Your task to perform on an android device: open a bookmark in the chrome app Image 0: 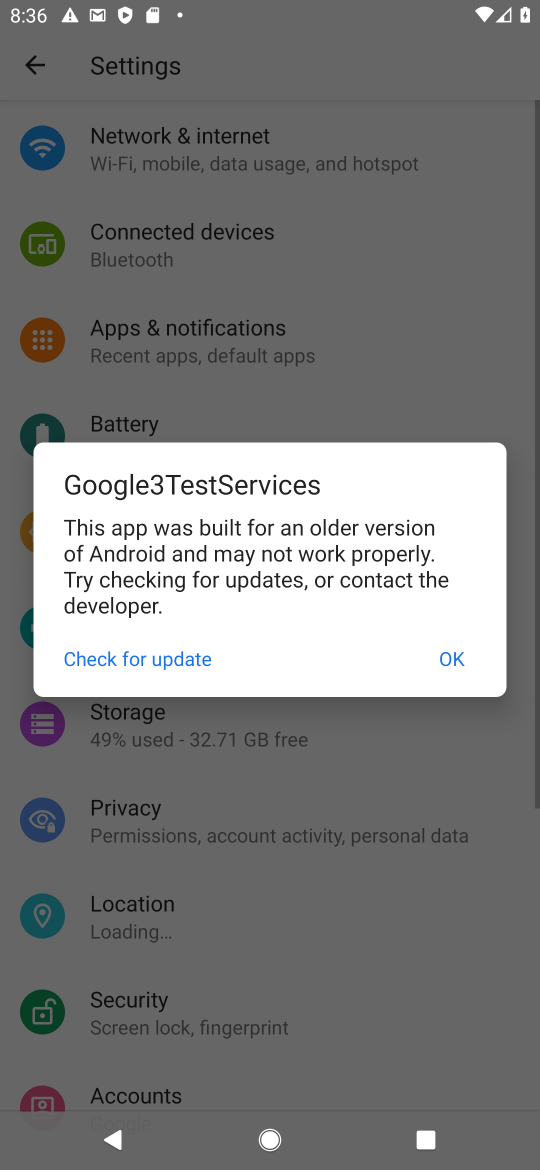
Step 0: click (442, 666)
Your task to perform on an android device: open a bookmark in the chrome app Image 1: 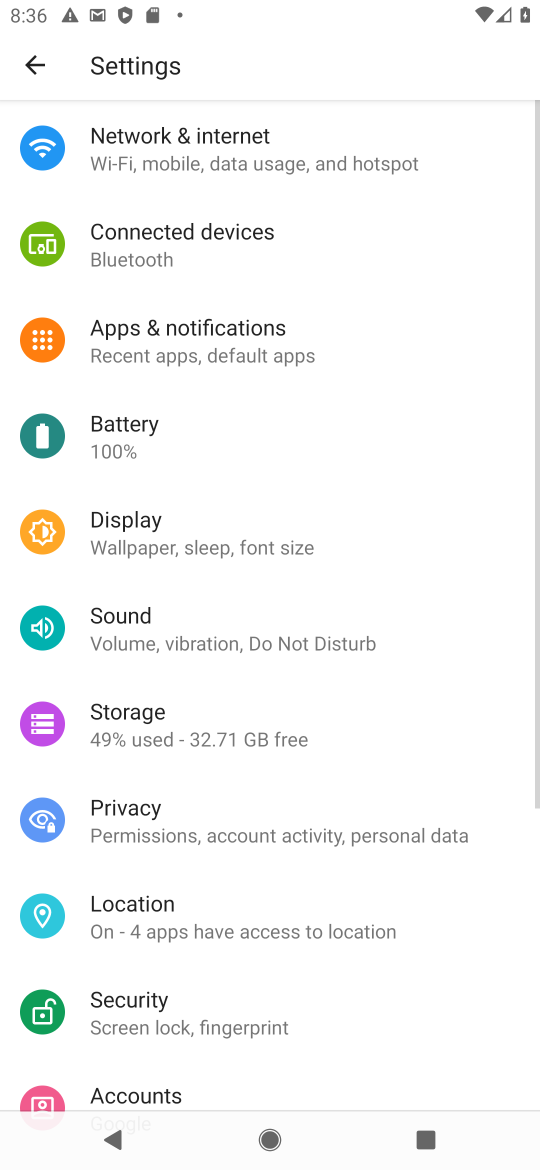
Step 1: press home button
Your task to perform on an android device: open a bookmark in the chrome app Image 2: 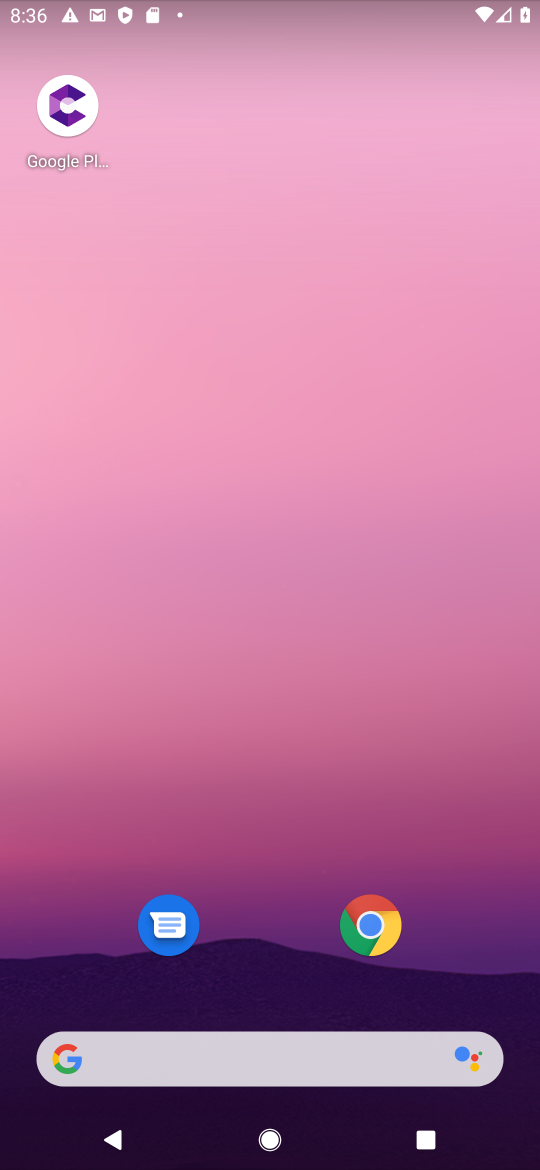
Step 2: click (361, 918)
Your task to perform on an android device: open a bookmark in the chrome app Image 3: 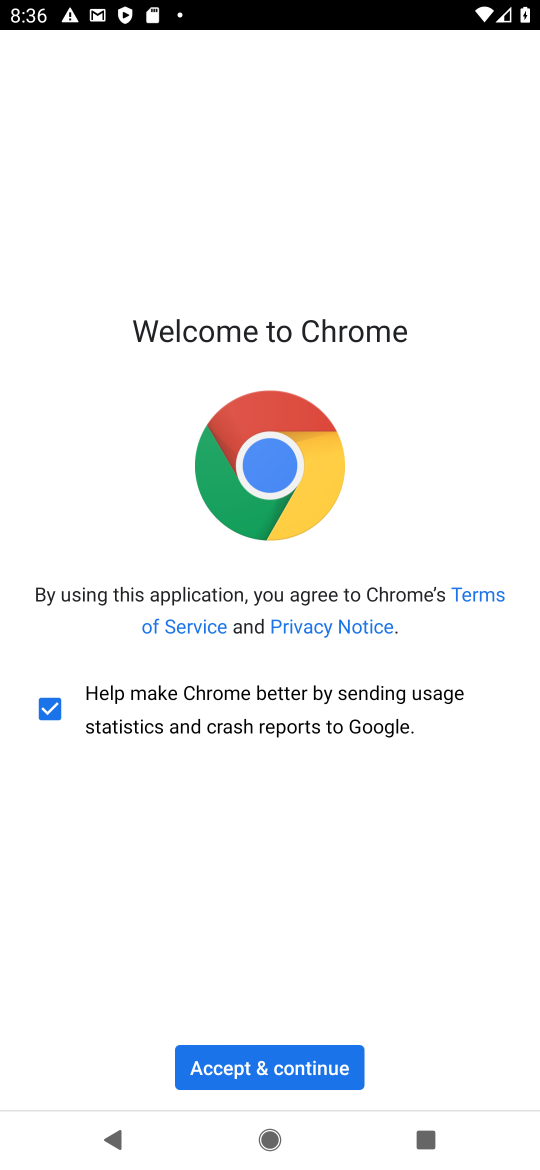
Step 3: click (237, 1074)
Your task to perform on an android device: open a bookmark in the chrome app Image 4: 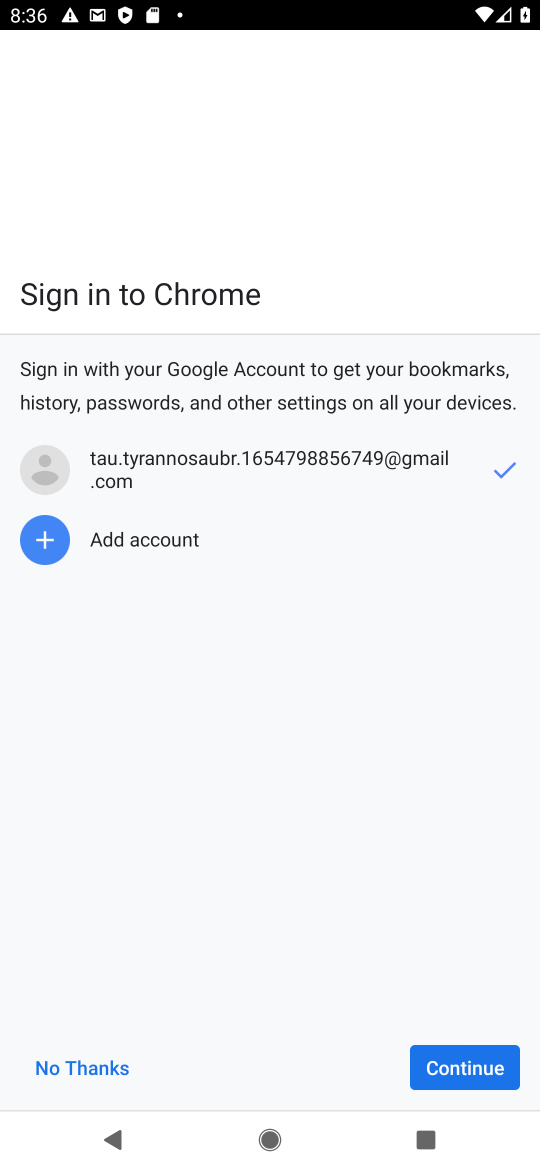
Step 4: click (428, 1069)
Your task to perform on an android device: open a bookmark in the chrome app Image 5: 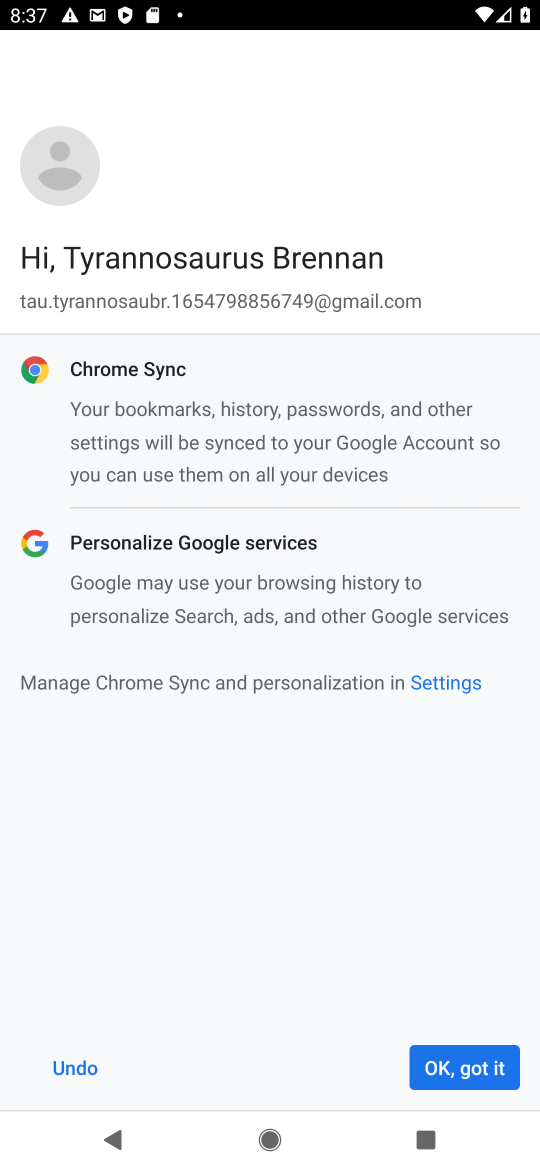
Step 5: click (428, 1069)
Your task to perform on an android device: open a bookmark in the chrome app Image 6: 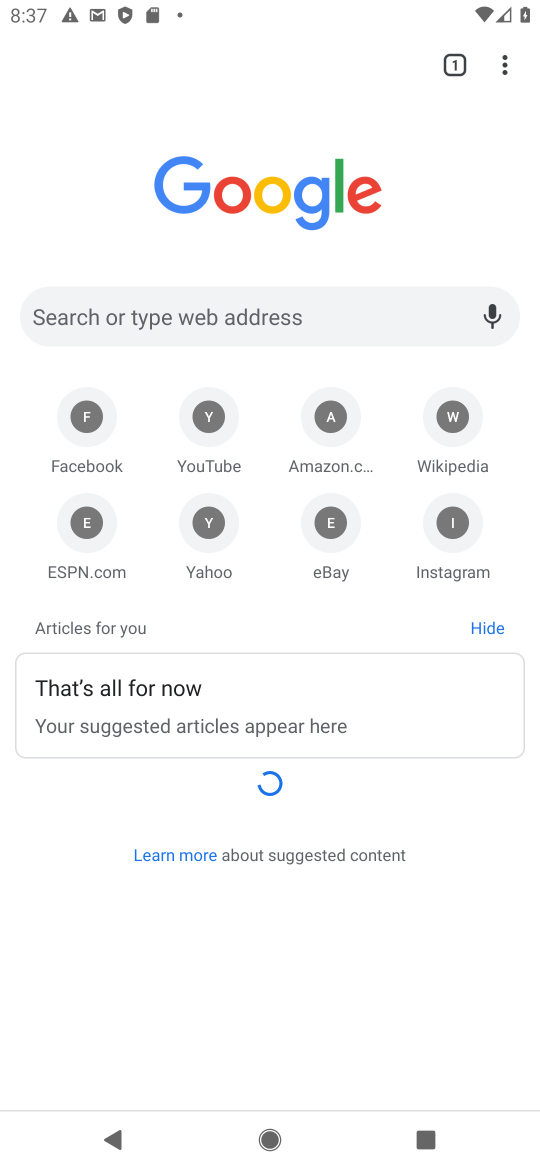
Step 6: click (520, 54)
Your task to perform on an android device: open a bookmark in the chrome app Image 7: 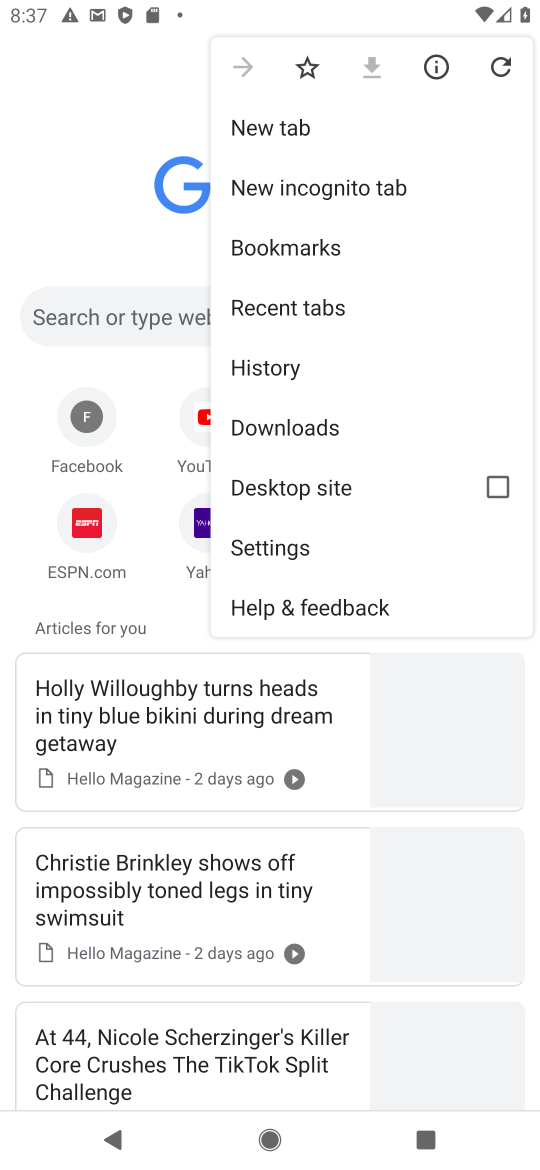
Step 7: click (331, 267)
Your task to perform on an android device: open a bookmark in the chrome app Image 8: 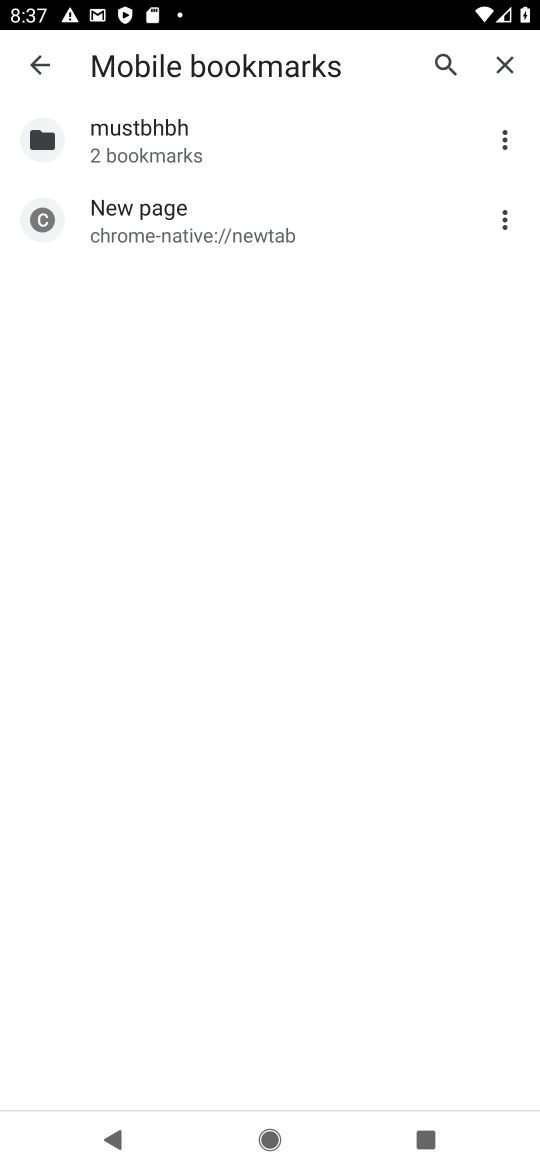
Step 8: click (237, 163)
Your task to perform on an android device: open a bookmark in the chrome app Image 9: 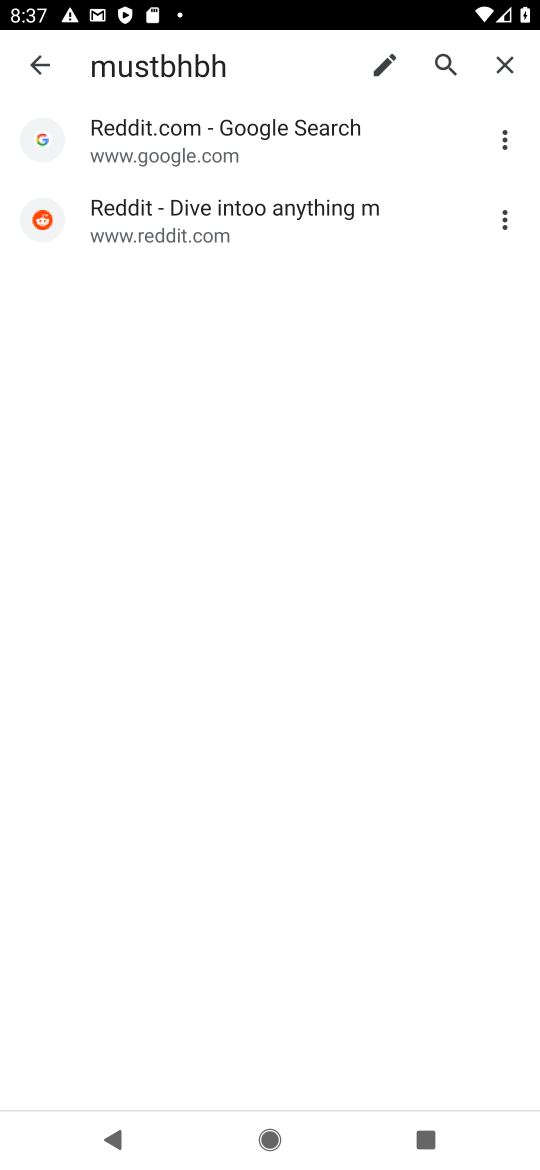
Step 9: click (237, 163)
Your task to perform on an android device: open a bookmark in the chrome app Image 10: 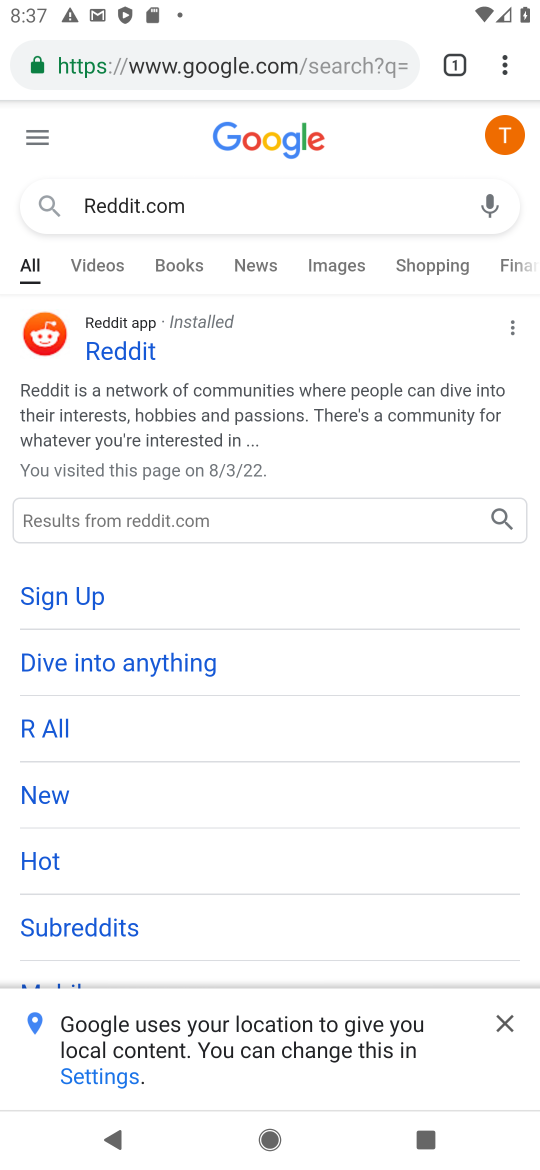
Step 10: task complete